Your task to perform on an android device: Open Maps and search for coffee Image 0: 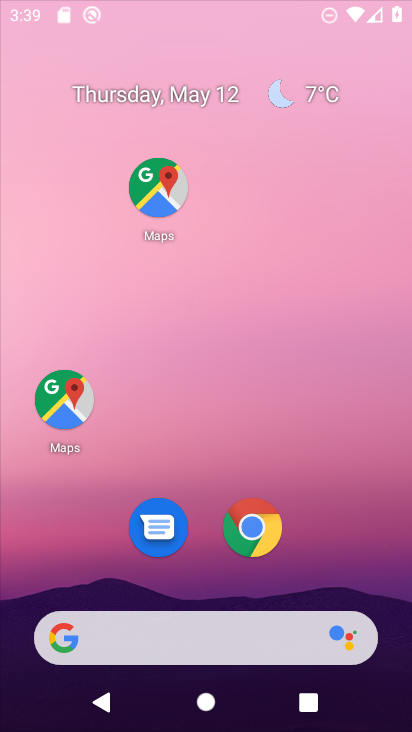
Step 0: press home button
Your task to perform on an android device: Open Maps and search for coffee Image 1: 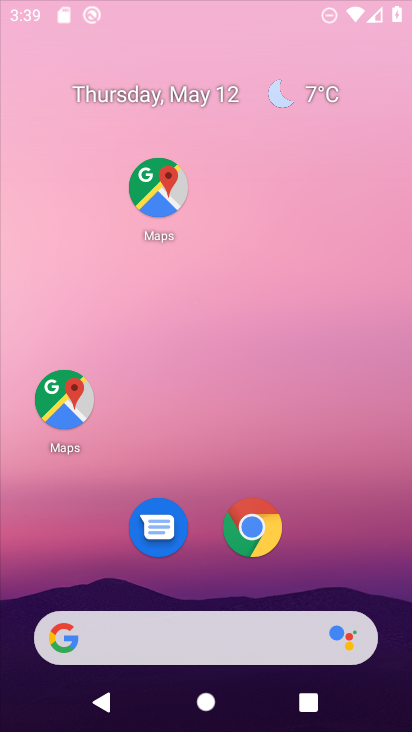
Step 1: drag from (202, 579) to (121, 26)
Your task to perform on an android device: Open Maps and search for coffee Image 2: 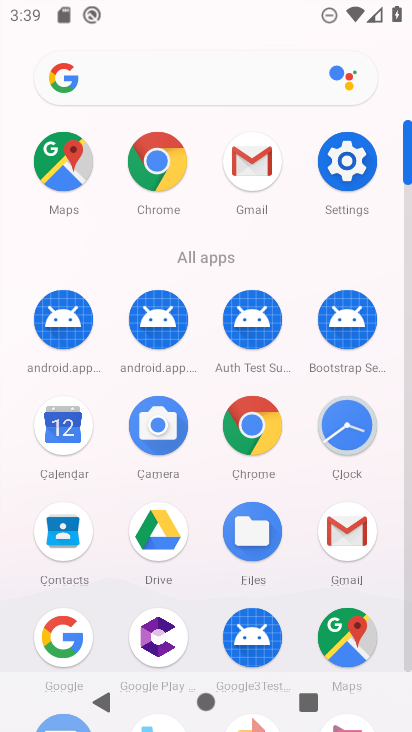
Step 2: click (355, 622)
Your task to perform on an android device: Open Maps and search for coffee Image 3: 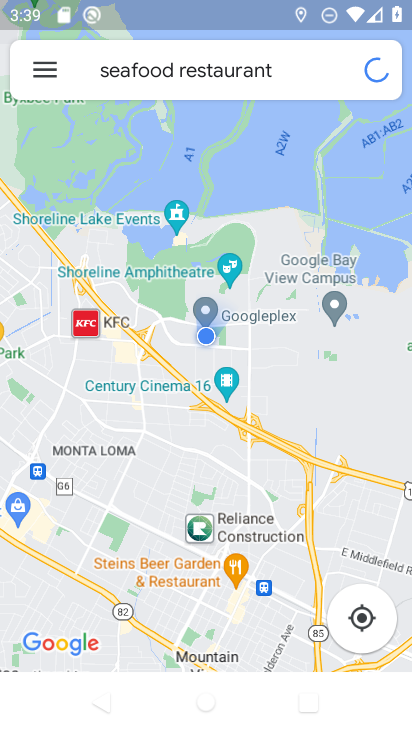
Step 3: click (291, 74)
Your task to perform on an android device: Open Maps and search for coffee Image 4: 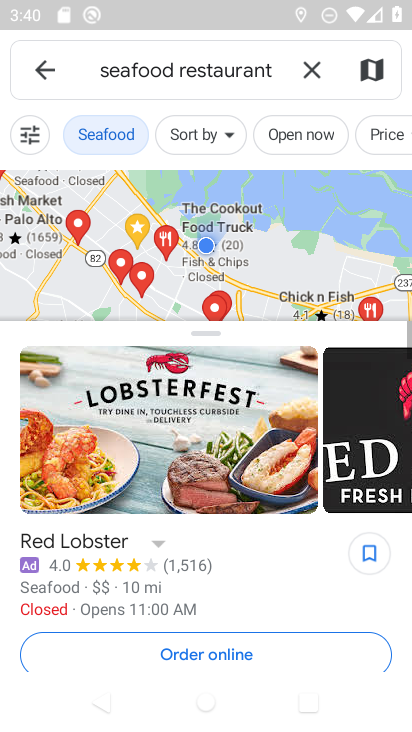
Step 4: click (306, 76)
Your task to perform on an android device: Open Maps and search for coffee Image 5: 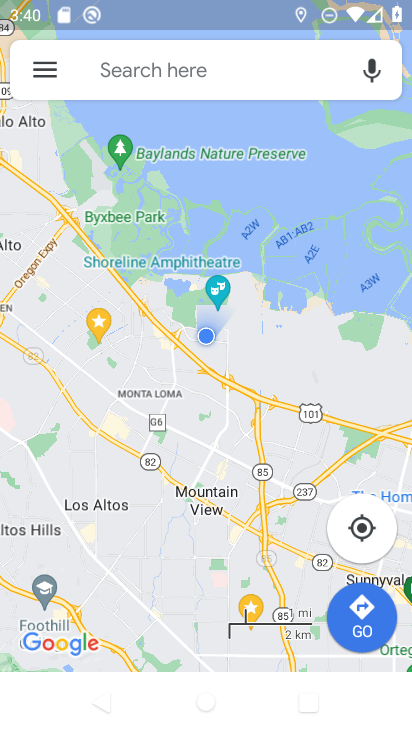
Step 5: click (125, 71)
Your task to perform on an android device: Open Maps and search for coffee Image 6: 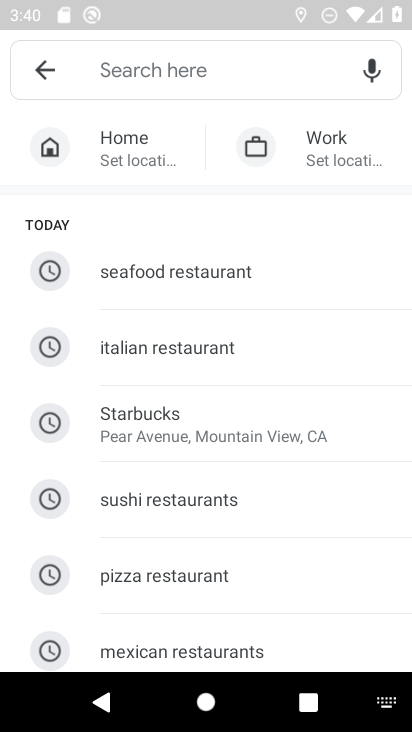
Step 6: drag from (189, 535) to (206, 605)
Your task to perform on an android device: Open Maps and search for coffee Image 7: 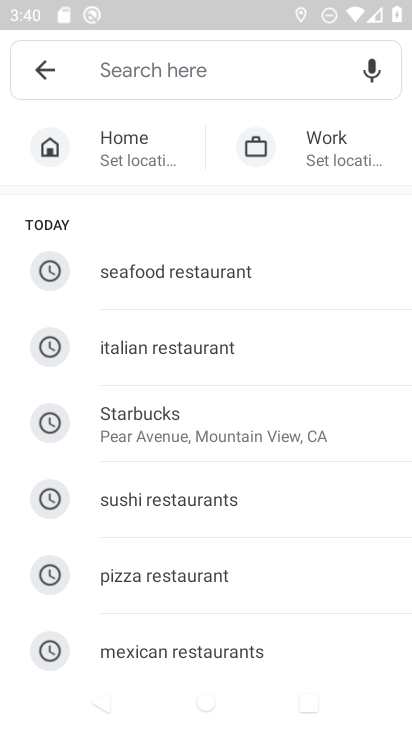
Step 7: click (139, 75)
Your task to perform on an android device: Open Maps and search for coffee Image 8: 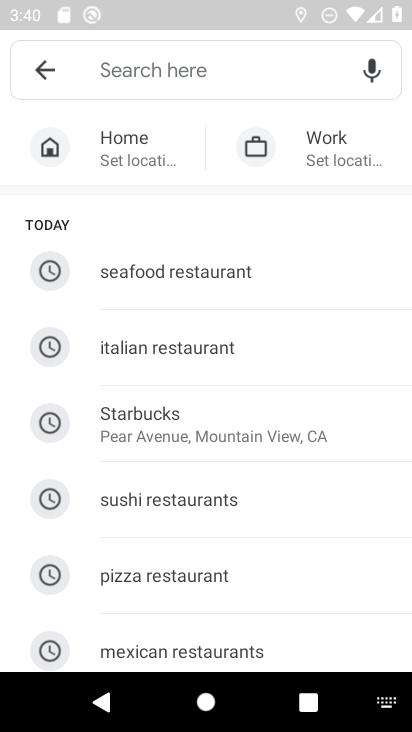
Step 8: type "coffee"
Your task to perform on an android device: Open Maps and search for coffee Image 9: 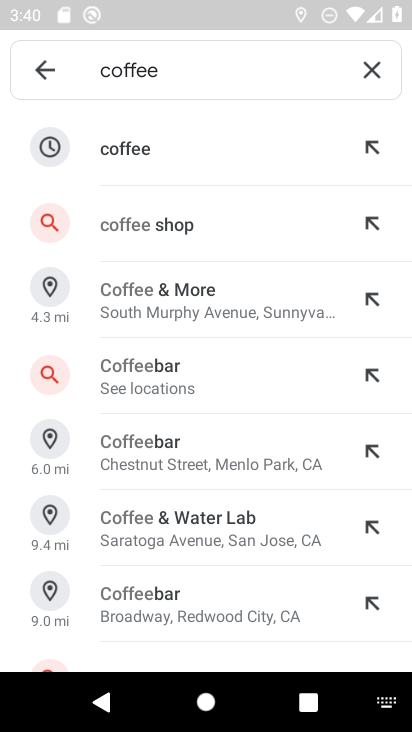
Step 9: click (142, 150)
Your task to perform on an android device: Open Maps and search for coffee Image 10: 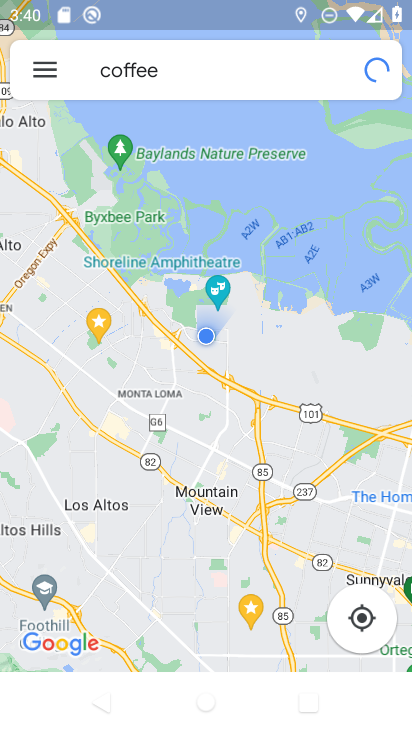
Step 10: task complete